Your task to perform on an android device: Clear all items from cart on costco. Search for razer naga on costco, select the first entry, and add it to the cart. Image 0: 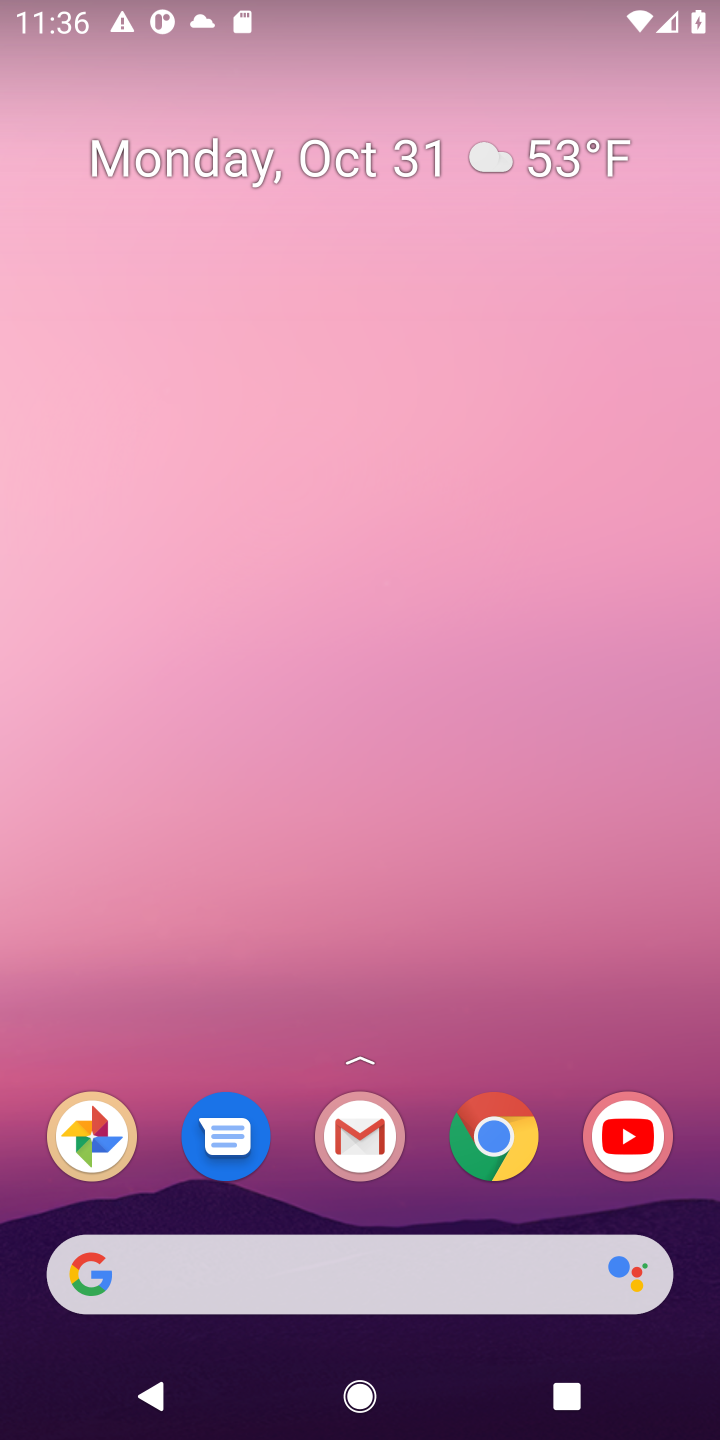
Step 0: press home button
Your task to perform on an android device: Clear all items from cart on costco. Search for razer naga on costco, select the first entry, and add it to the cart. Image 1: 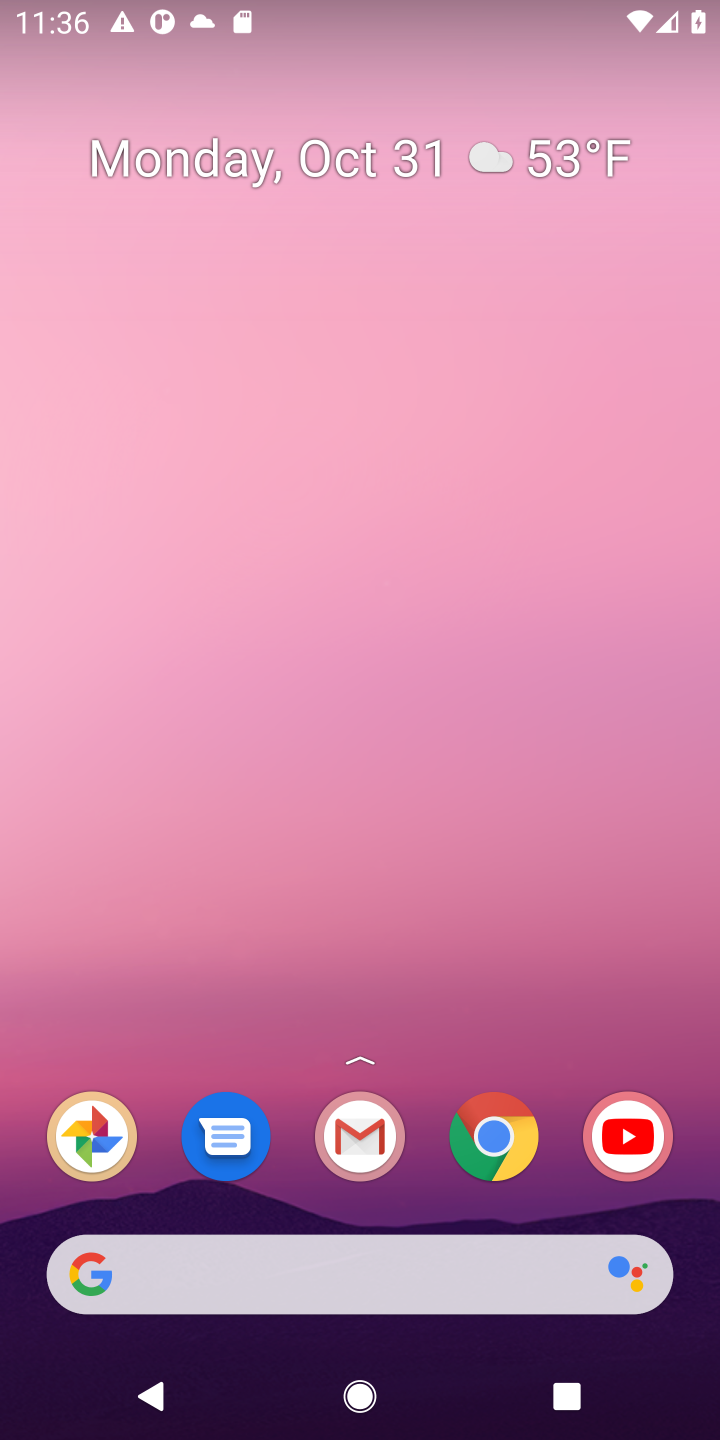
Step 1: click (156, 1268)
Your task to perform on an android device: Clear all items from cart on costco. Search for razer naga on costco, select the first entry, and add it to the cart. Image 2: 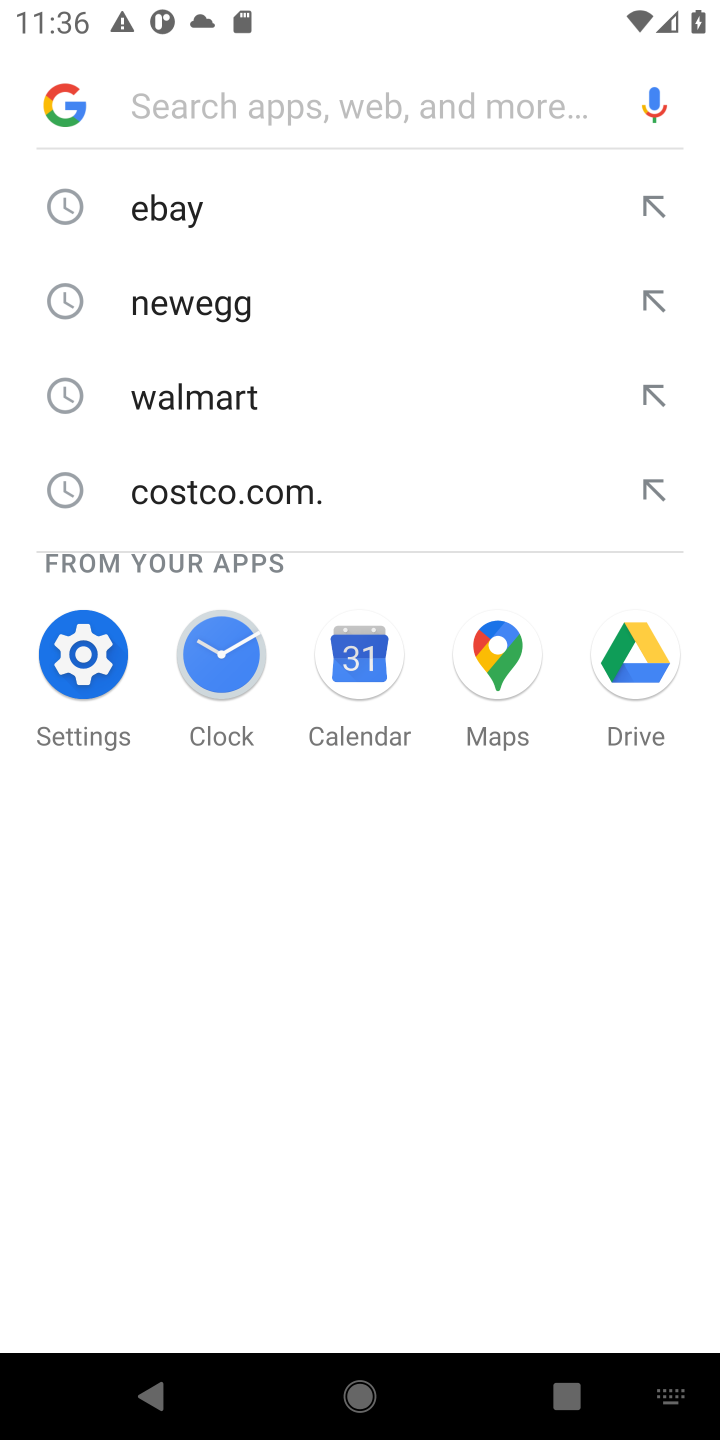
Step 2: type "costco"
Your task to perform on an android device: Clear all items from cart on costco. Search for razer naga on costco, select the first entry, and add it to the cart. Image 3: 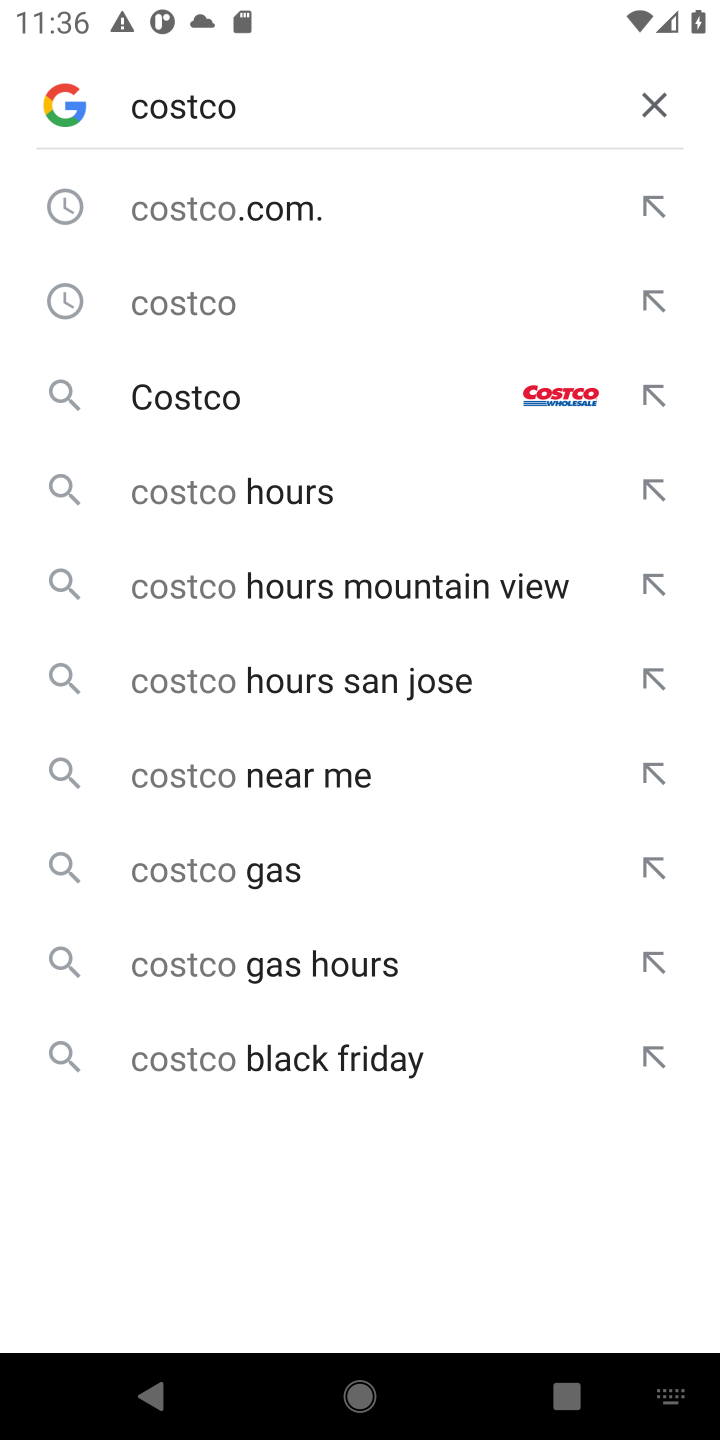
Step 3: press enter
Your task to perform on an android device: Clear all items from cart on costco. Search for razer naga on costco, select the first entry, and add it to the cart. Image 4: 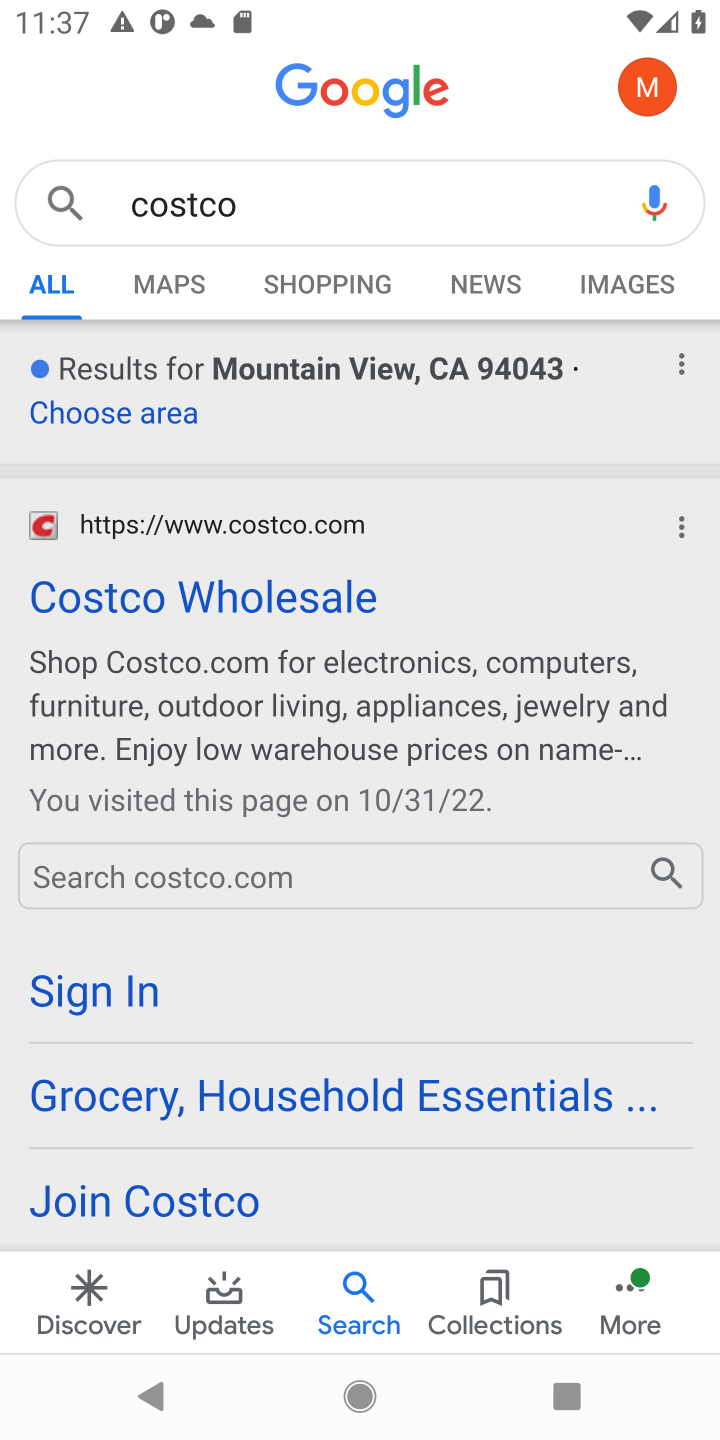
Step 4: click (269, 573)
Your task to perform on an android device: Clear all items from cart on costco. Search for razer naga on costco, select the first entry, and add it to the cart. Image 5: 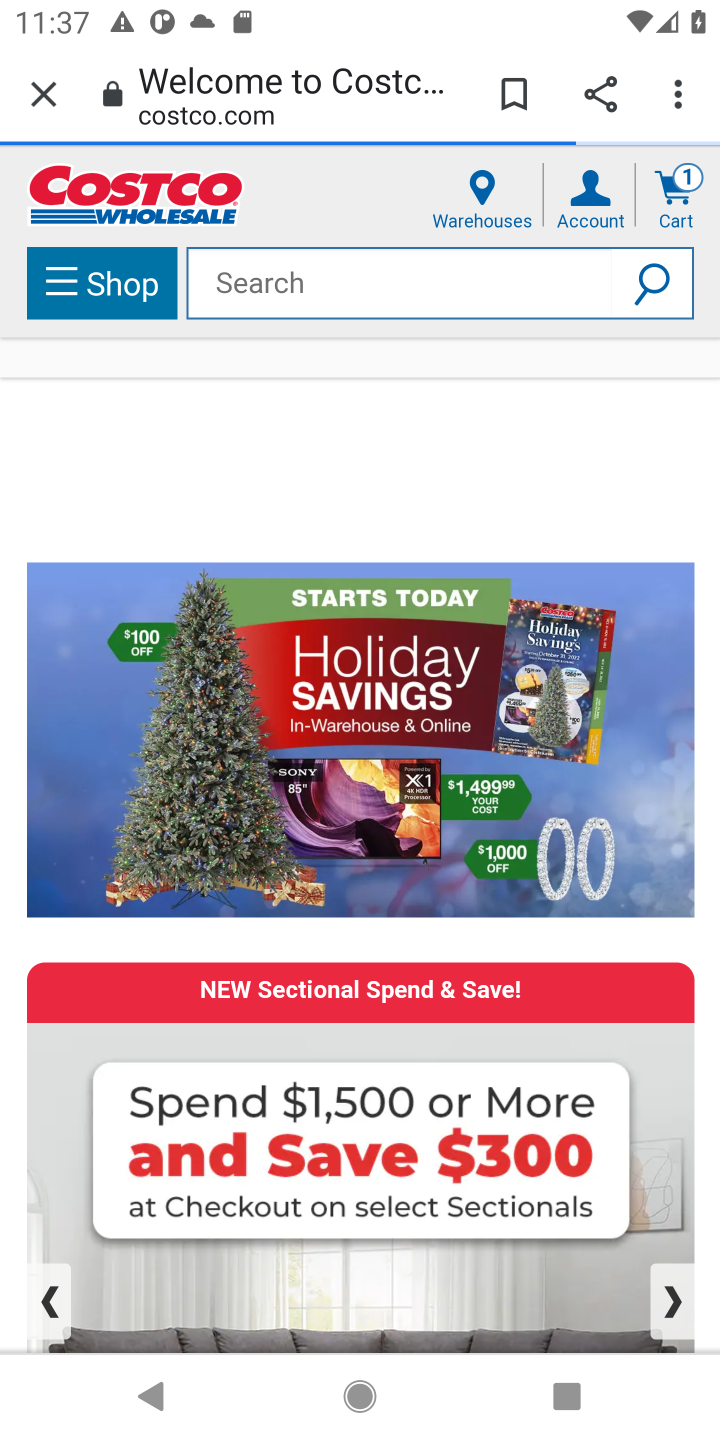
Step 5: click (676, 183)
Your task to perform on an android device: Clear all items from cart on costco. Search for razer naga on costco, select the first entry, and add it to the cart. Image 6: 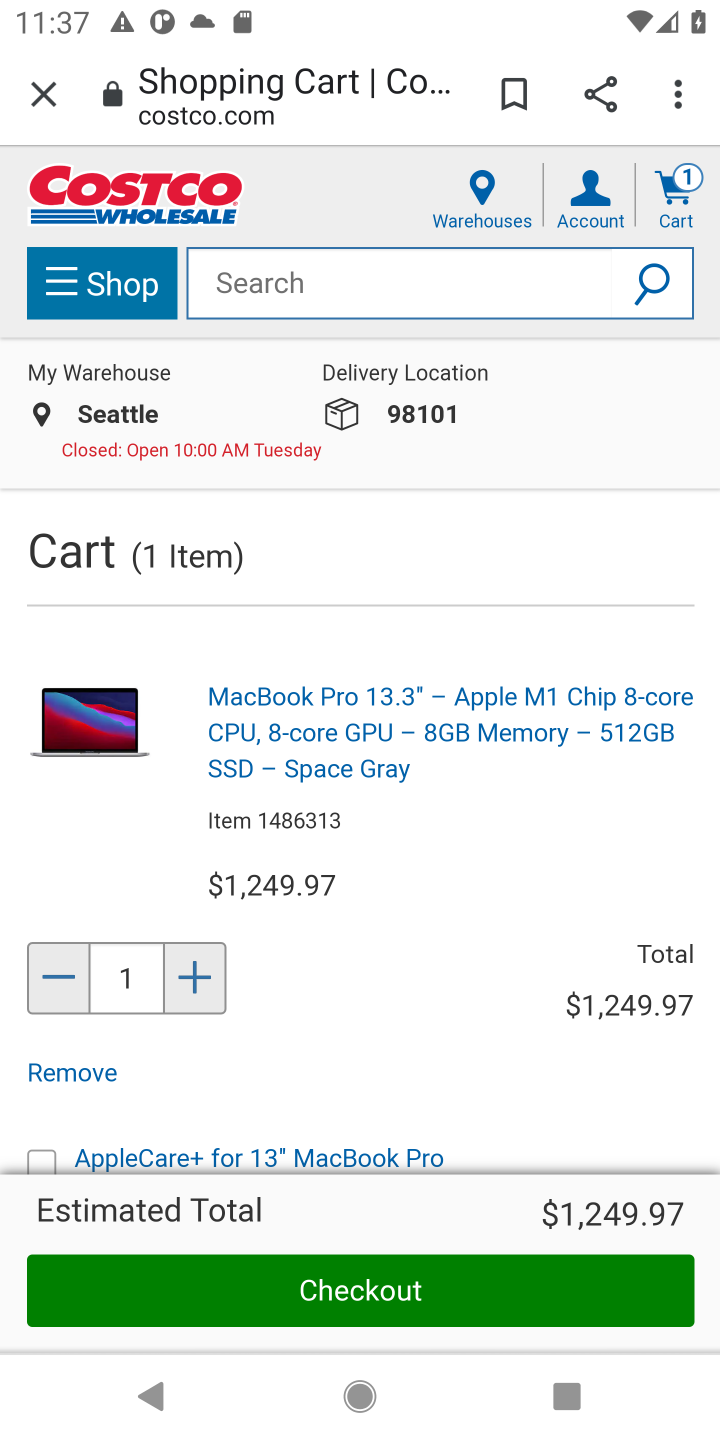
Step 6: click (88, 1064)
Your task to perform on an android device: Clear all items from cart on costco. Search for razer naga on costco, select the first entry, and add it to the cart. Image 7: 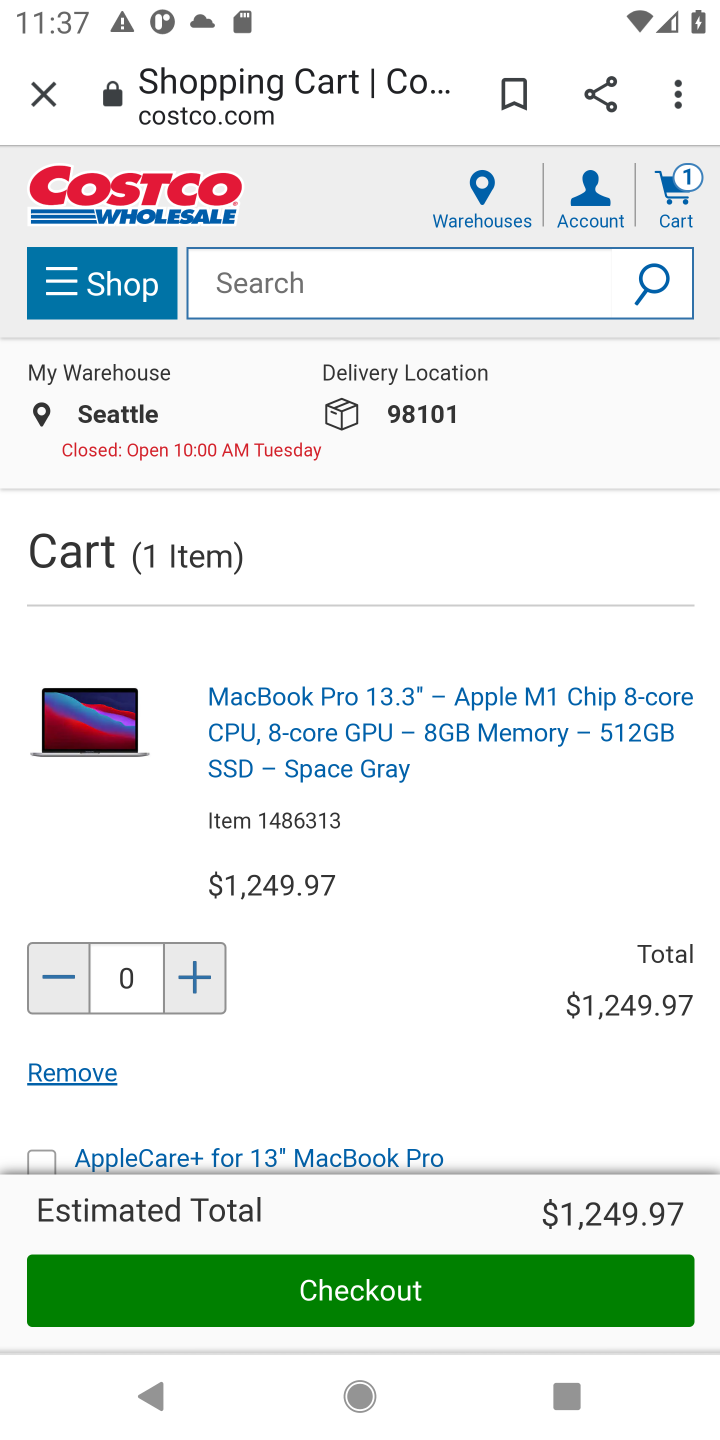
Step 7: click (67, 1064)
Your task to perform on an android device: Clear all items from cart on costco. Search for razer naga on costco, select the first entry, and add it to the cart. Image 8: 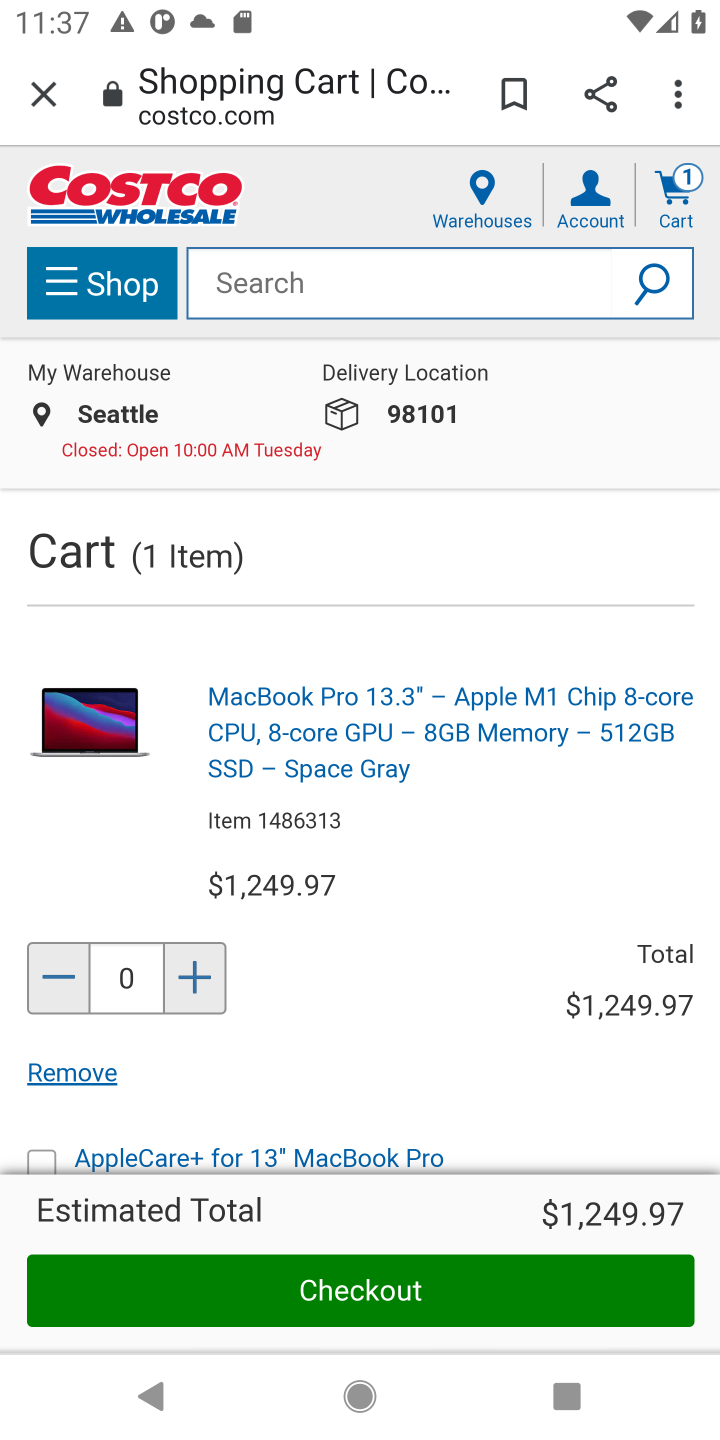
Step 8: click (59, 1073)
Your task to perform on an android device: Clear all items from cart on costco. Search for razer naga on costco, select the first entry, and add it to the cart. Image 9: 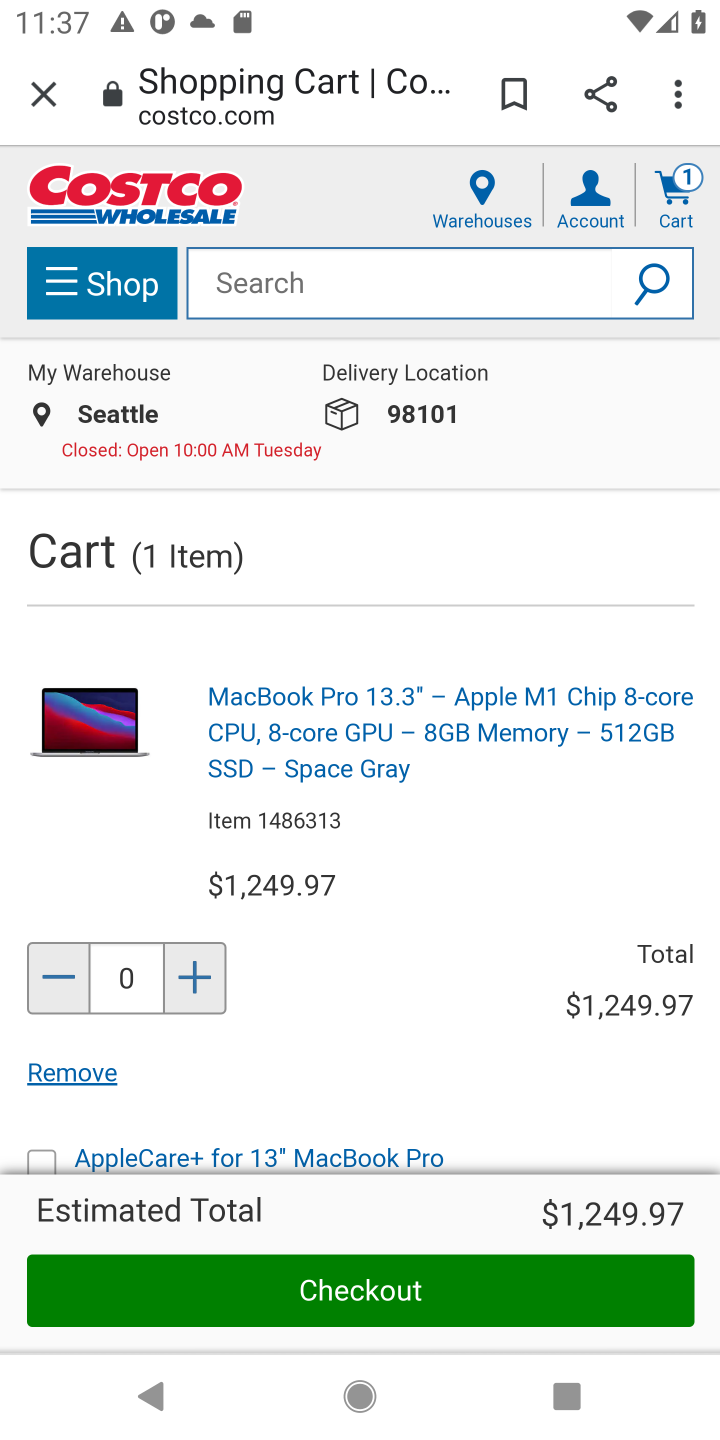
Step 9: click (288, 298)
Your task to perform on an android device: Clear all items from cart on costco. Search for razer naga on costco, select the first entry, and add it to the cart. Image 10: 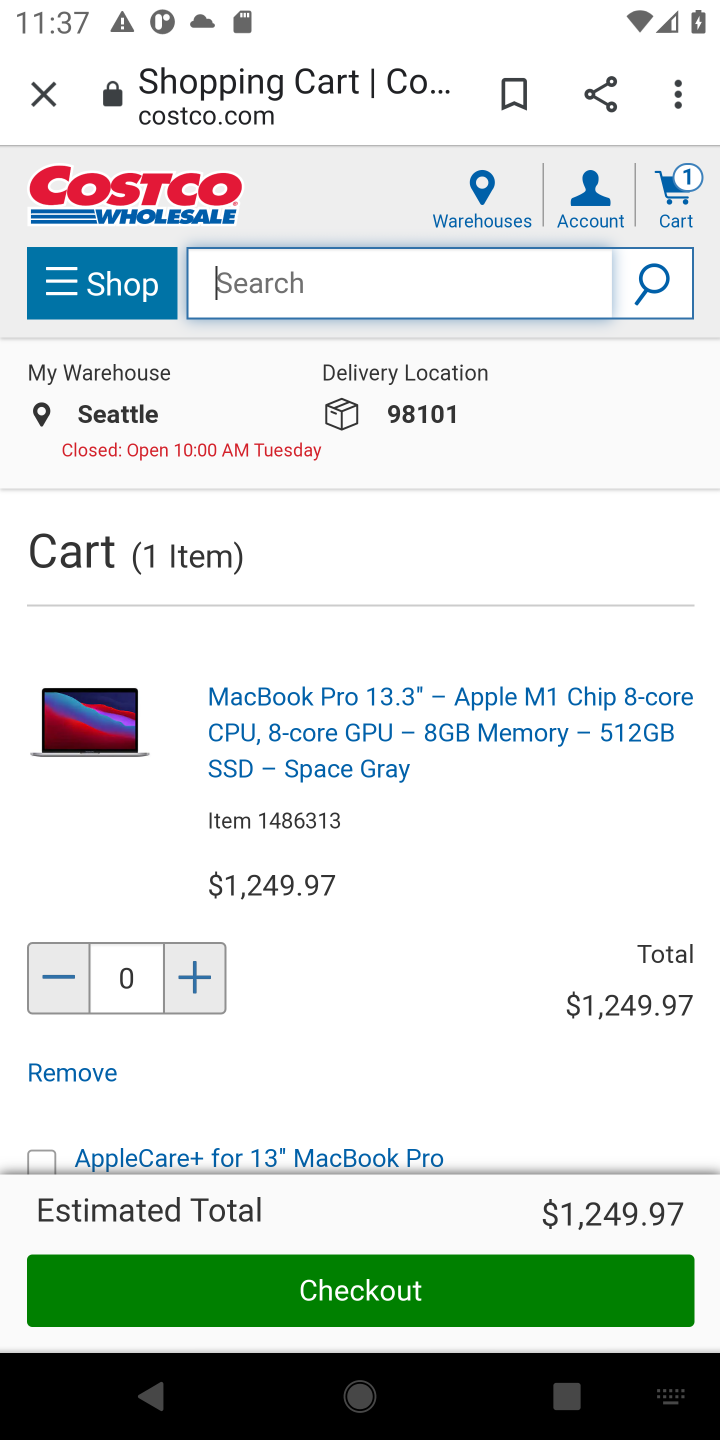
Step 10: type "razer naga"
Your task to perform on an android device: Clear all items from cart on costco. Search for razer naga on costco, select the first entry, and add it to the cart. Image 11: 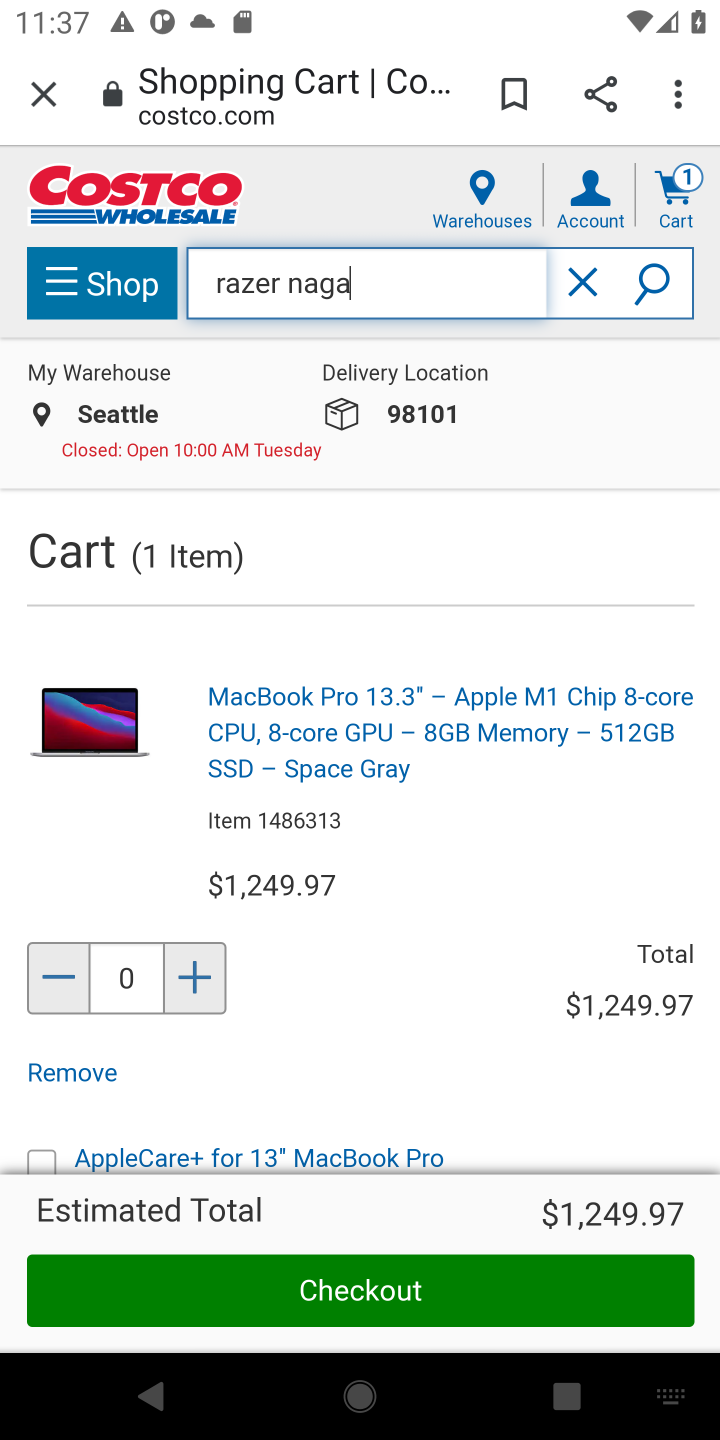
Step 11: press enter
Your task to perform on an android device: Clear all items from cart on costco. Search for razer naga on costco, select the first entry, and add it to the cart. Image 12: 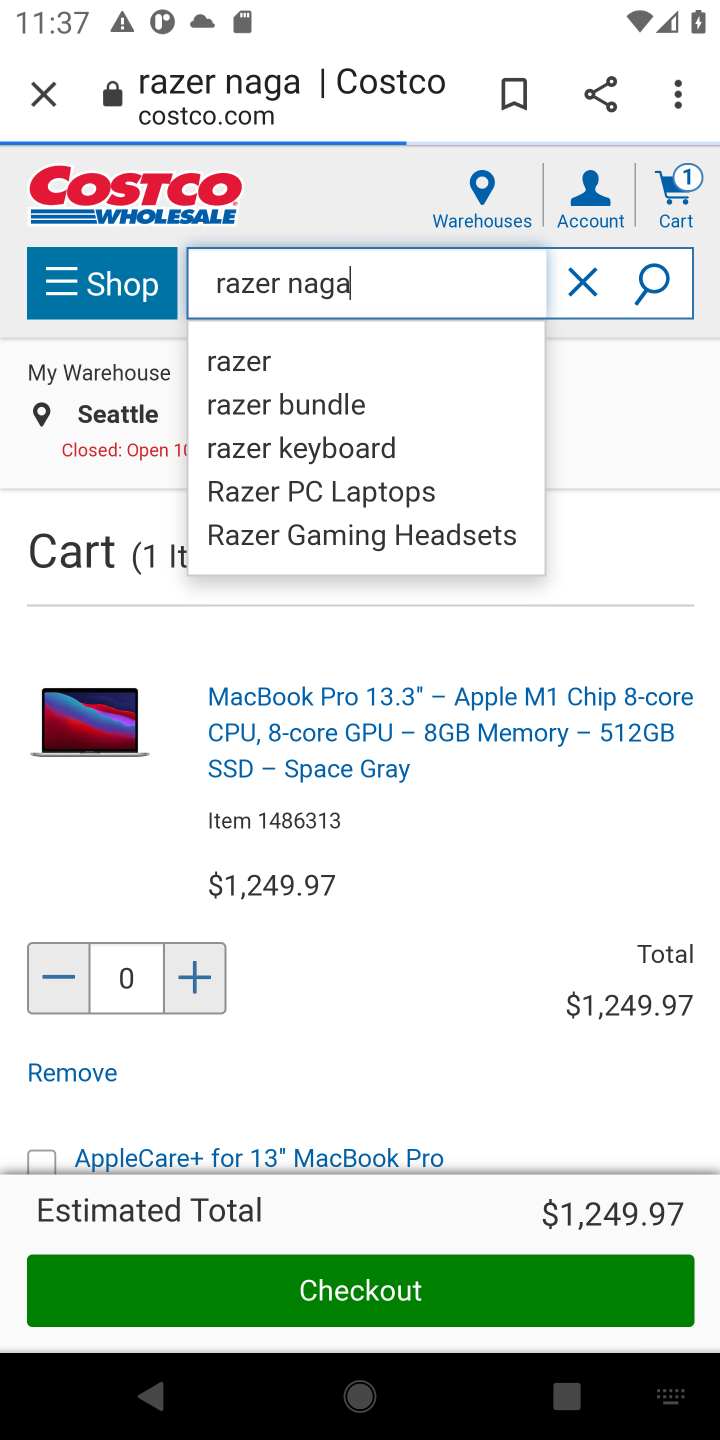
Step 12: click (654, 276)
Your task to perform on an android device: Clear all items from cart on costco. Search for razer naga on costco, select the first entry, and add it to the cart. Image 13: 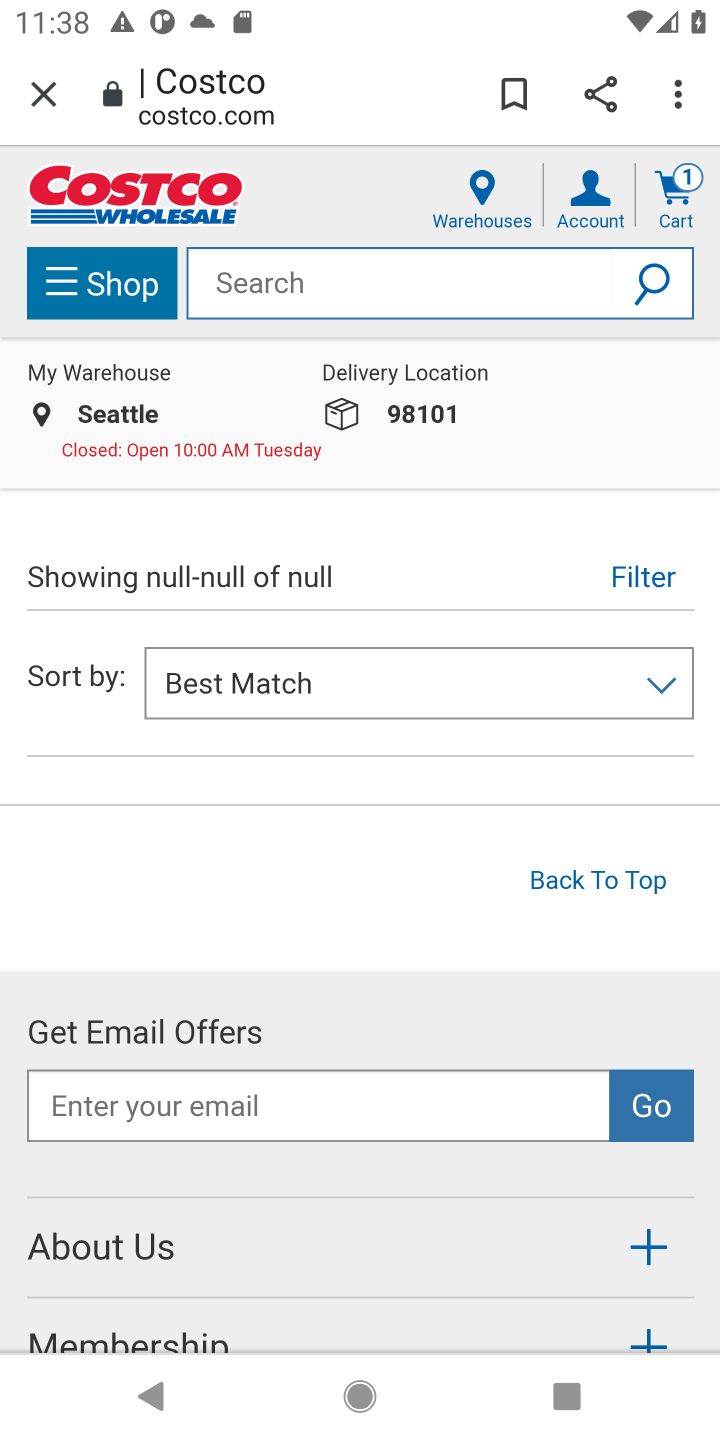
Step 13: task complete